Your task to perform on an android device: manage bookmarks in the chrome app Image 0: 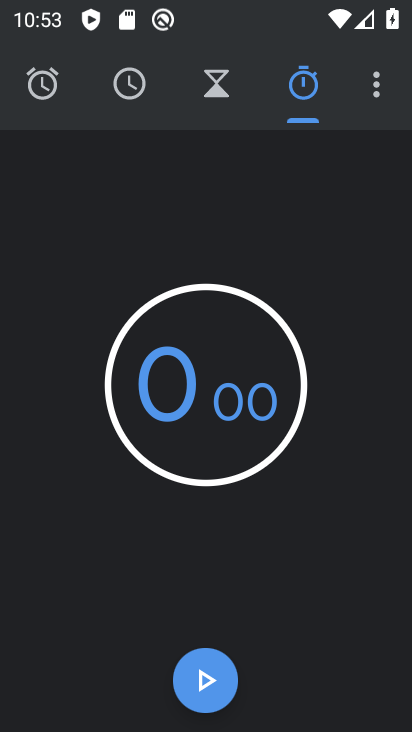
Step 0: press home button
Your task to perform on an android device: manage bookmarks in the chrome app Image 1: 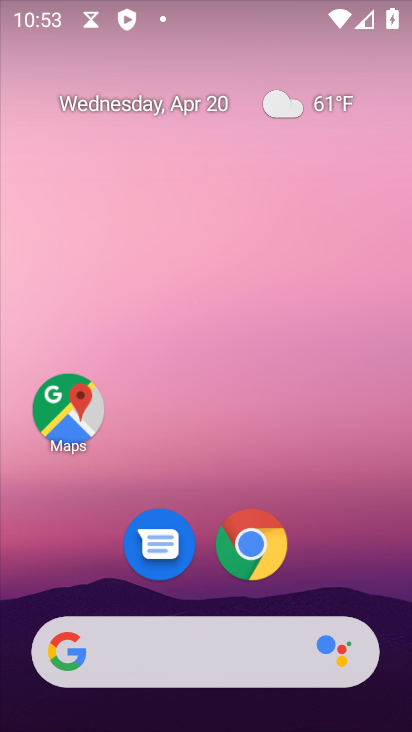
Step 1: drag from (163, 628) to (232, 164)
Your task to perform on an android device: manage bookmarks in the chrome app Image 2: 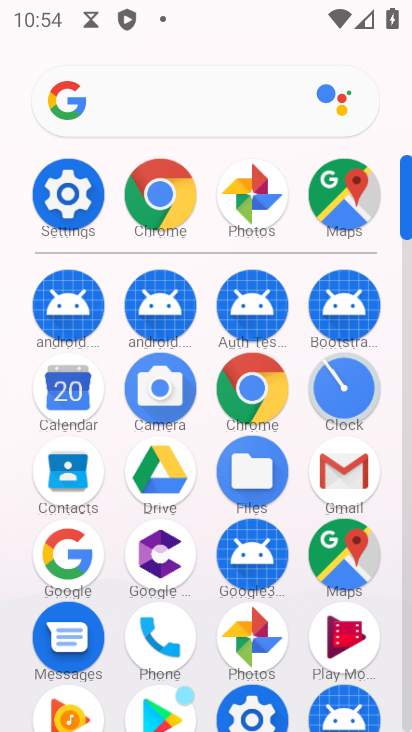
Step 2: click (171, 204)
Your task to perform on an android device: manage bookmarks in the chrome app Image 3: 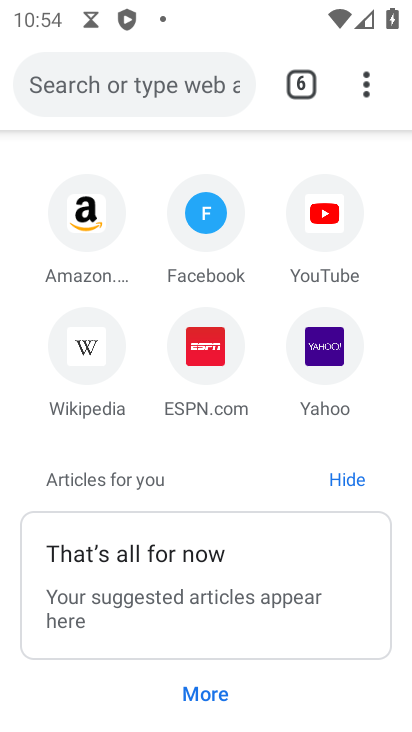
Step 3: click (357, 95)
Your task to perform on an android device: manage bookmarks in the chrome app Image 4: 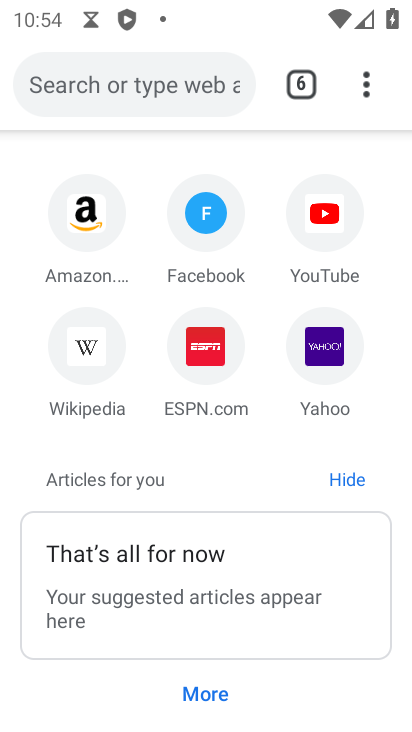
Step 4: click (358, 94)
Your task to perform on an android device: manage bookmarks in the chrome app Image 5: 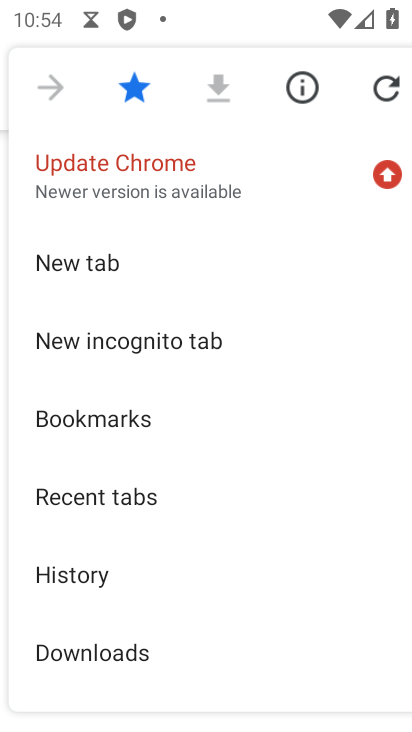
Step 5: click (82, 421)
Your task to perform on an android device: manage bookmarks in the chrome app Image 6: 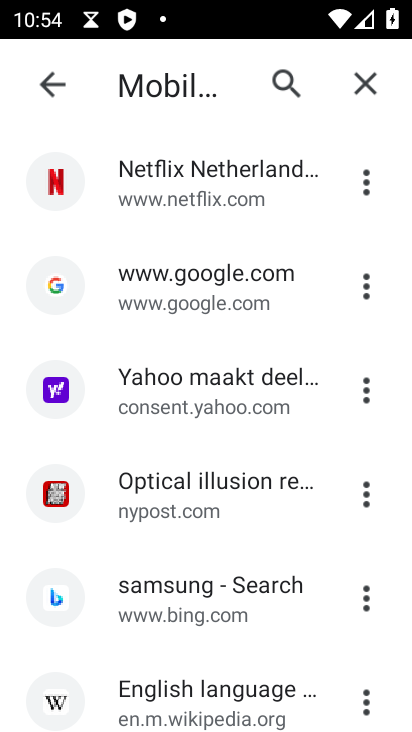
Step 6: click (363, 176)
Your task to perform on an android device: manage bookmarks in the chrome app Image 7: 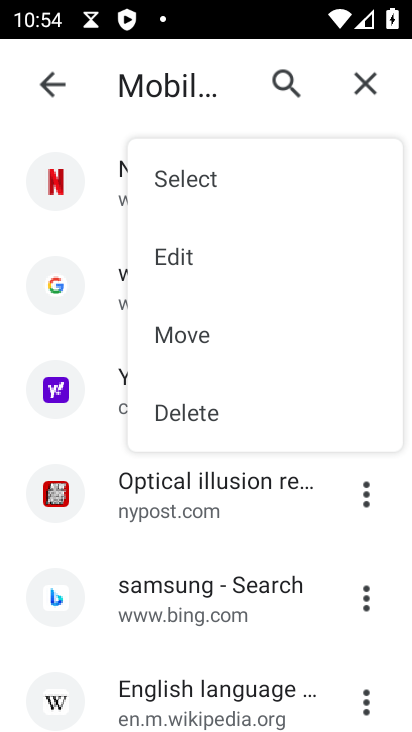
Step 7: click (186, 415)
Your task to perform on an android device: manage bookmarks in the chrome app Image 8: 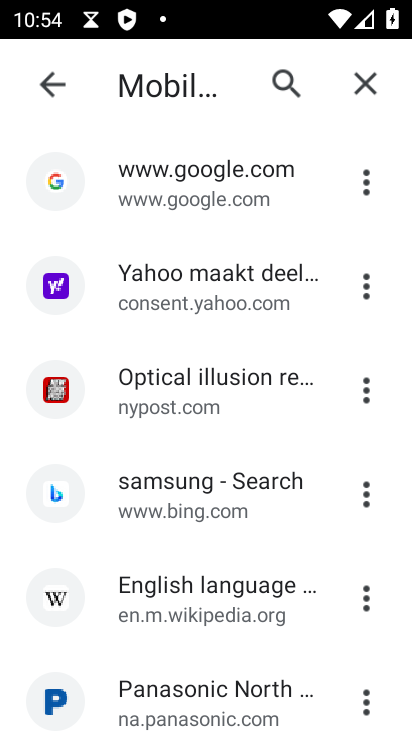
Step 8: task complete